Your task to perform on an android device: Open Google Image 0: 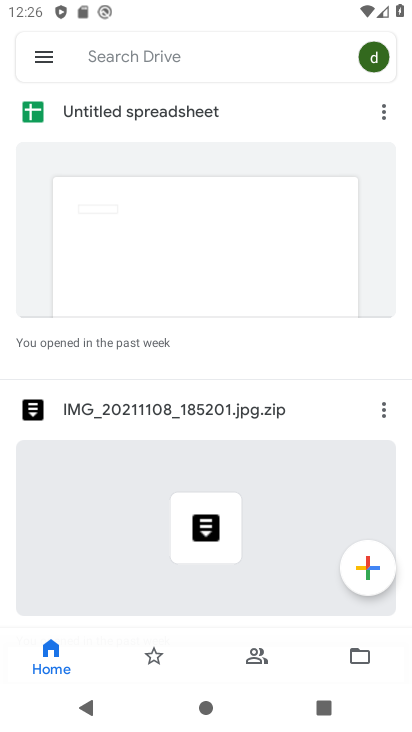
Step 0: press home button
Your task to perform on an android device: Open Google Image 1: 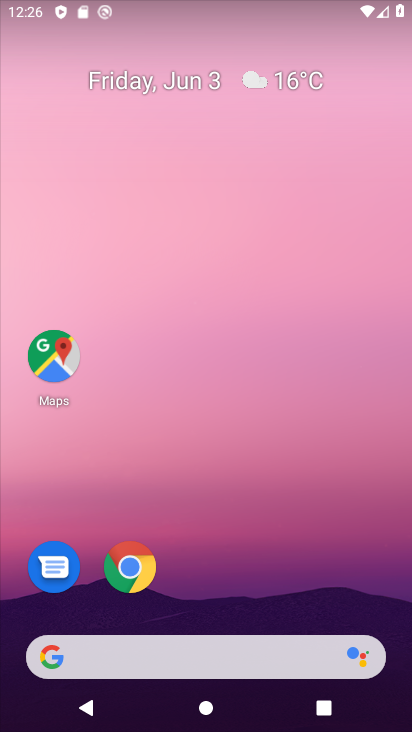
Step 1: drag from (224, 604) to (233, 10)
Your task to perform on an android device: Open Google Image 2: 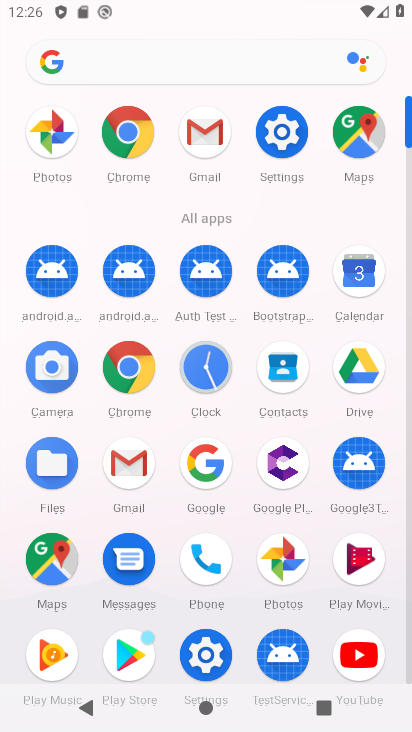
Step 2: click (202, 469)
Your task to perform on an android device: Open Google Image 3: 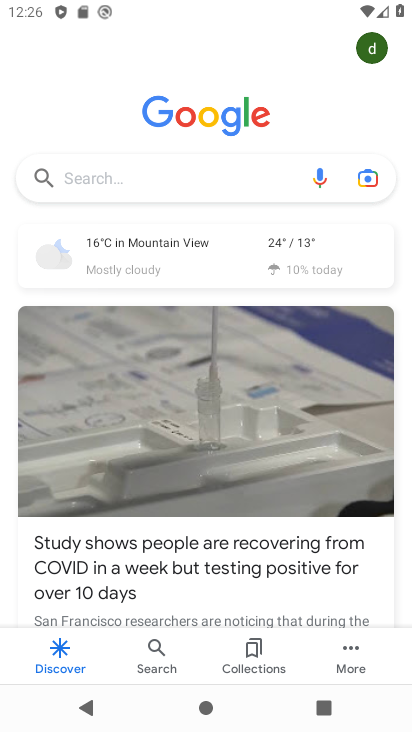
Step 3: task complete